Your task to perform on an android device: turn off notifications settings in the gmail app Image 0: 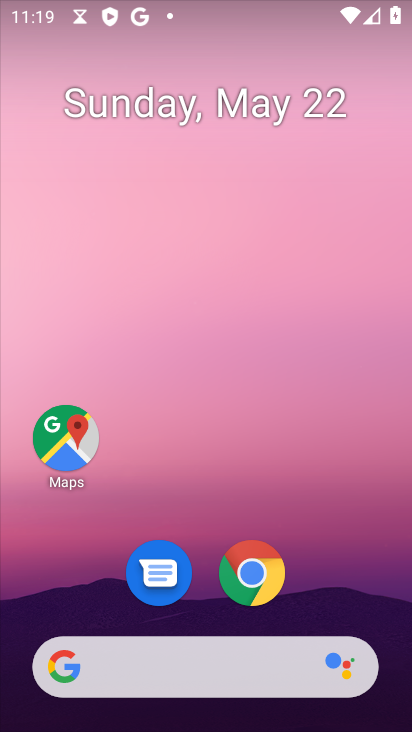
Step 0: press home button
Your task to perform on an android device: turn off notifications settings in the gmail app Image 1: 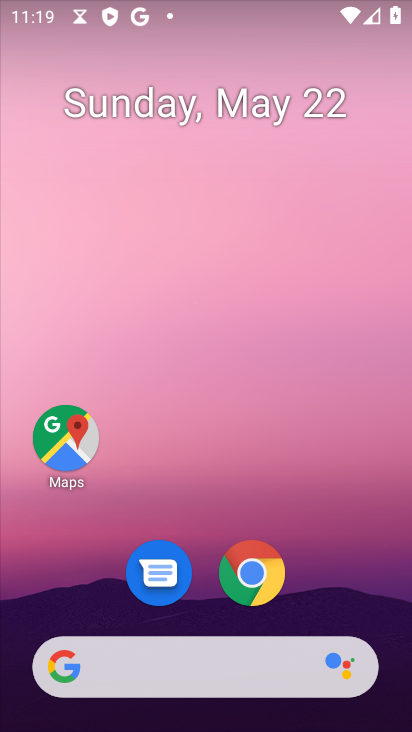
Step 1: drag from (166, 655) to (286, 153)
Your task to perform on an android device: turn off notifications settings in the gmail app Image 2: 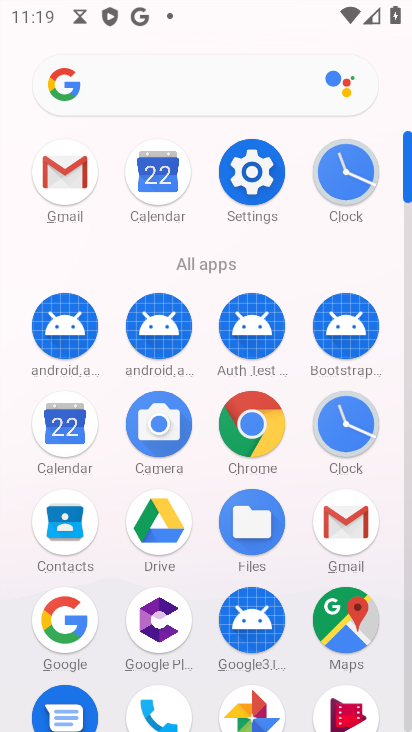
Step 2: click (59, 181)
Your task to perform on an android device: turn off notifications settings in the gmail app Image 3: 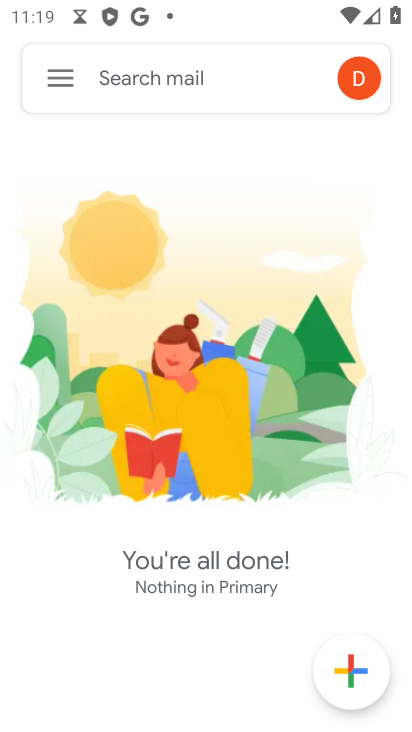
Step 3: click (55, 76)
Your task to perform on an android device: turn off notifications settings in the gmail app Image 4: 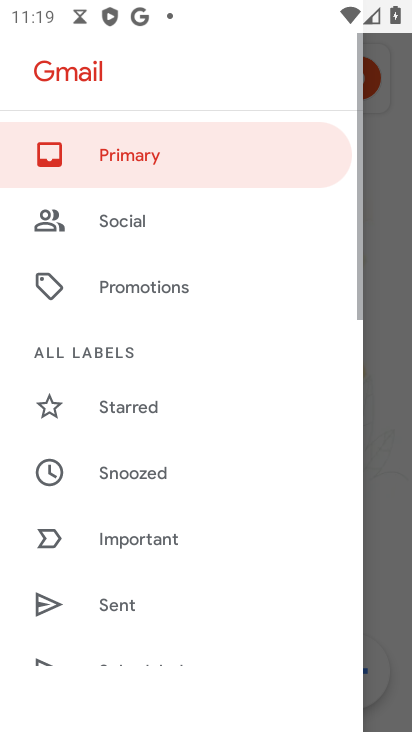
Step 4: drag from (159, 645) to (213, 139)
Your task to perform on an android device: turn off notifications settings in the gmail app Image 5: 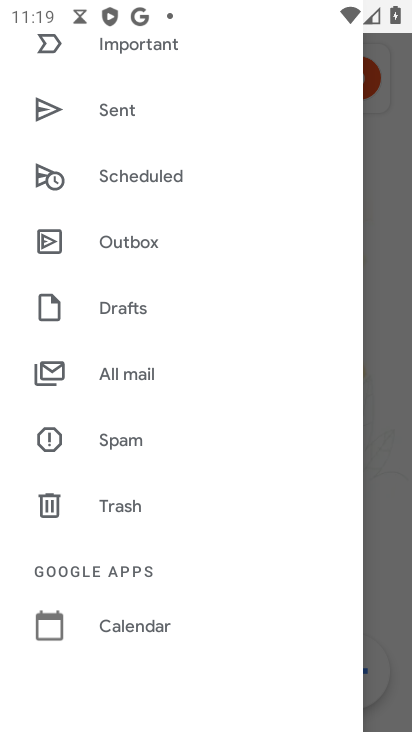
Step 5: drag from (243, 619) to (260, 203)
Your task to perform on an android device: turn off notifications settings in the gmail app Image 6: 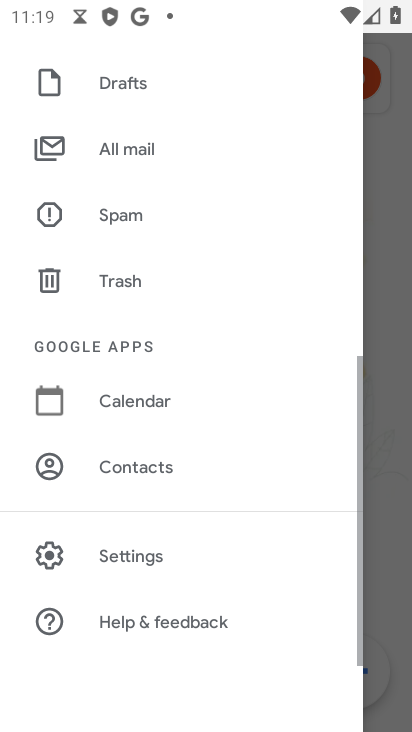
Step 6: click (137, 562)
Your task to perform on an android device: turn off notifications settings in the gmail app Image 7: 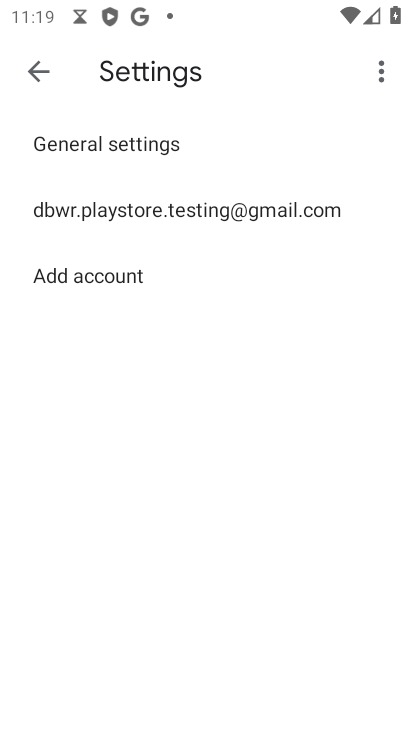
Step 7: click (231, 214)
Your task to perform on an android device: turn off notifications settings in the gmail app Image 8: 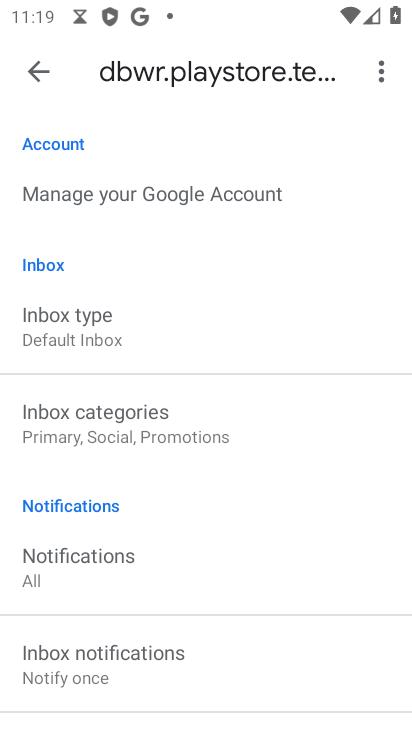
Step 8: click (96, 579)
Your task to perform on an android device: turn off notifications settings in the gmail app Image 9: 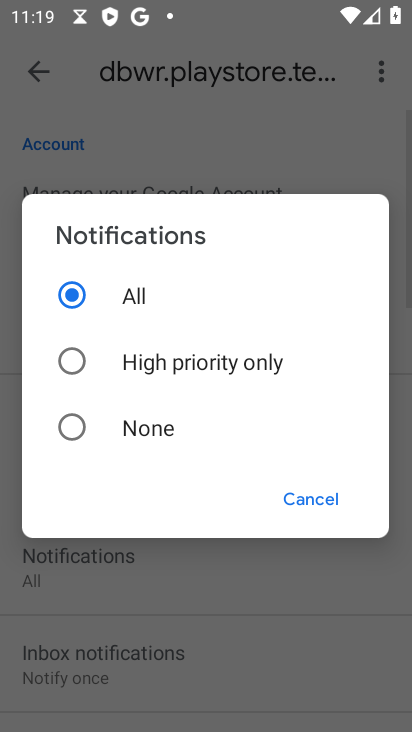
Step 9: click (72, 425)
Your task to perform on an android device: turn off notifications settings in the gmail app Image 10: 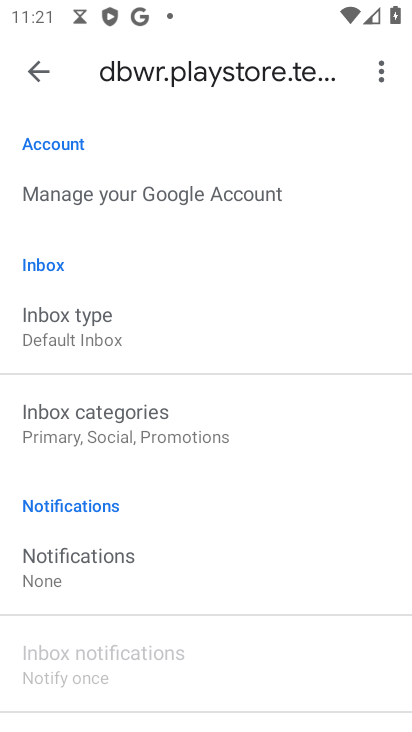
Step 10: task complete